Your task to perform on an android device: turn on sleep mode Image 0: 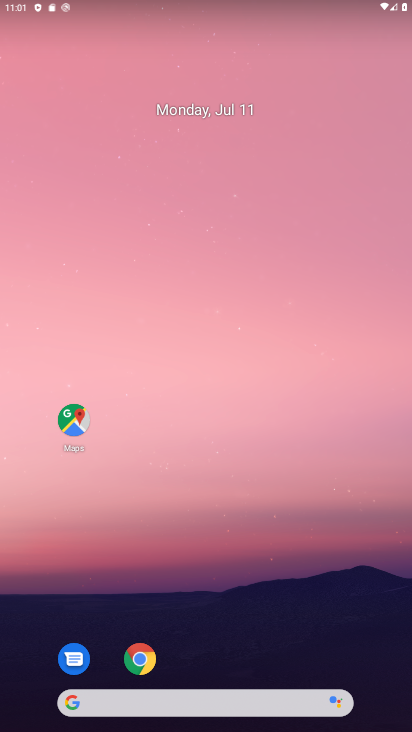
Step 0: drag from (227, 594) to (243, 43)
Your task to perform on an android device: turn on sleep mode Image 1: 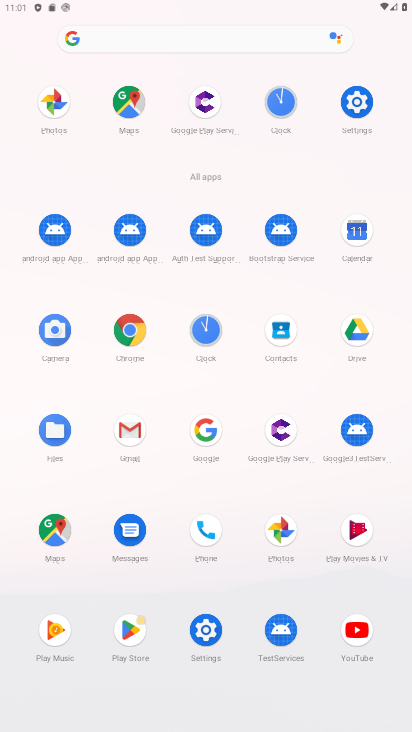
Step 1: click (371, 101)
Your task to perform on an android device: turn on sleep mode Image 2: 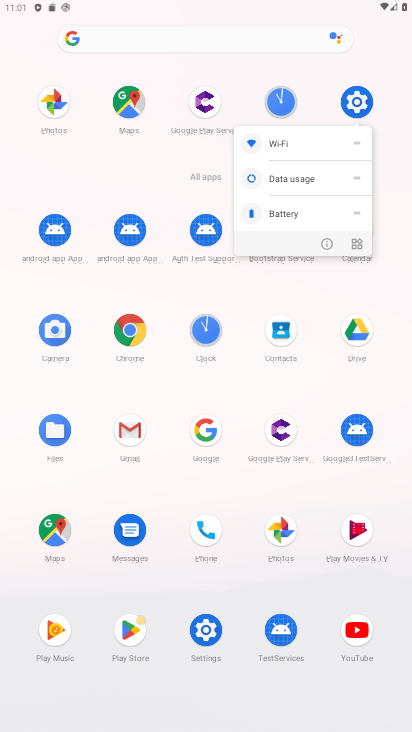
Step 2: click (371, 99)
Your task to perform on an android device: turn on sleep mode Image 3: 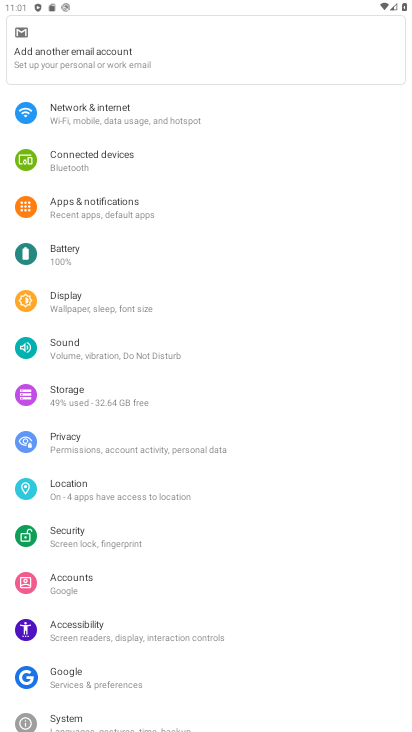
Step 3: drag from (130, 646) to (178, 93)
Your task to perform on an android device: turn on sleep mode Image 4: 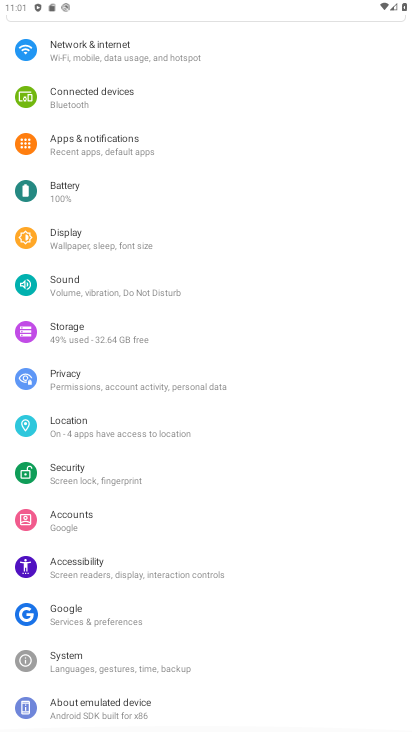
Step 4: drag from (185, 115) to (143, 676)
Your task to perform on an android device: turn on sleep mode Image 5: 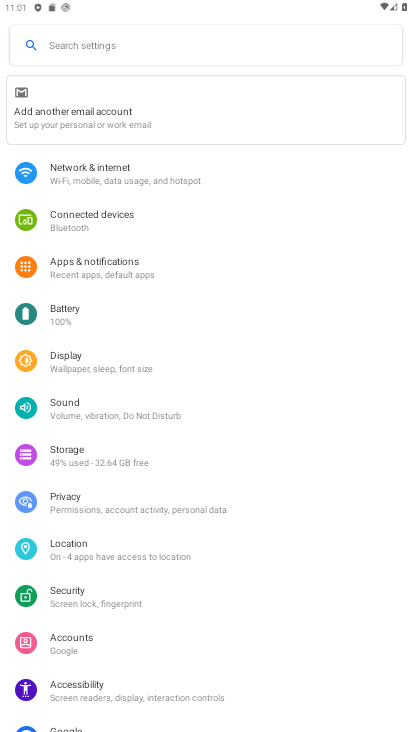
Step 5: click (93, 365)
Your task to perform on an android device: turn on sleep mode Image 6: 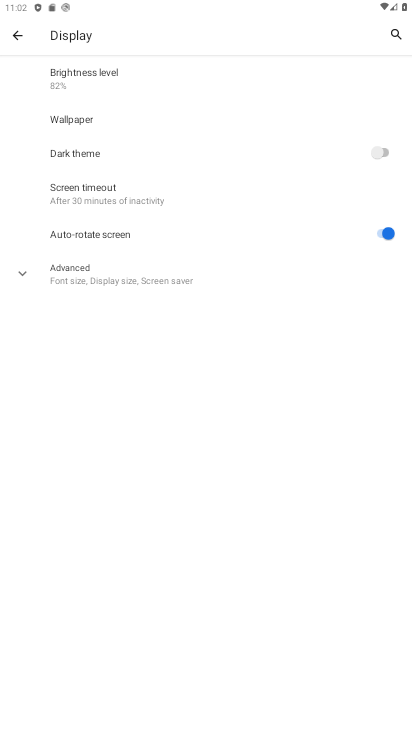
Step 6: click (120, 197)
Your task to perform on an android device: turn on sleep mode Image 7: 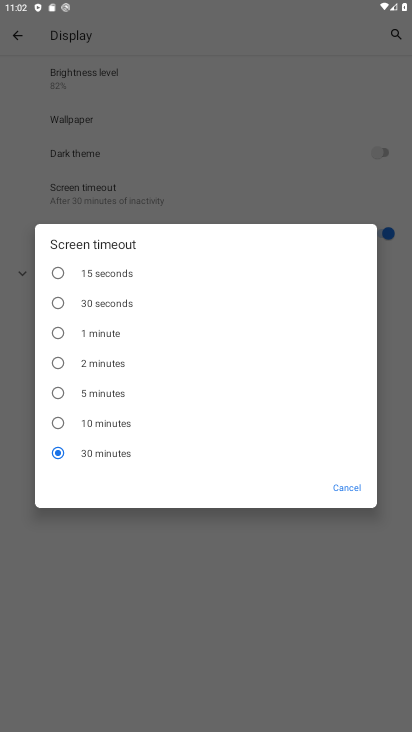
Step 7: task complete